Your task to perform on an android device: Open a new incognito window in Chrome Image 0: 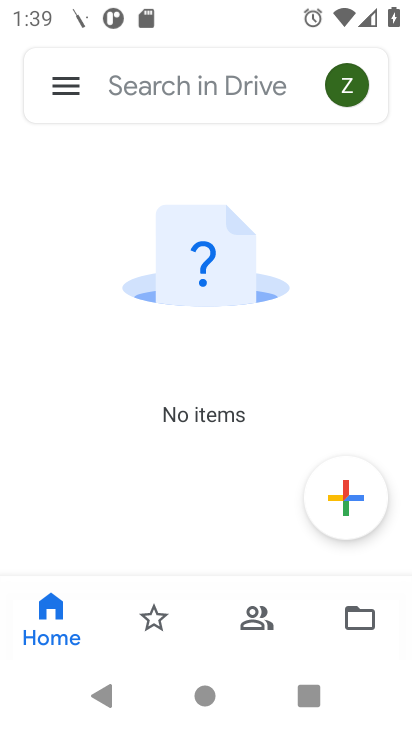
Step 0: press home button
Your task to perform on an android device: Open a new incognito window in Chrome Image 1: 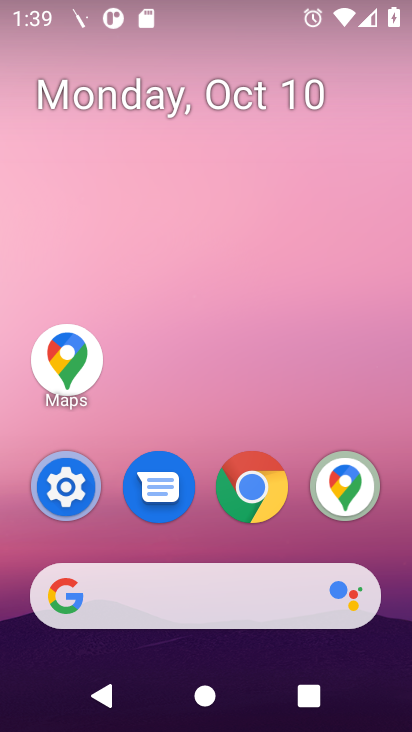
Step 1: click (258, 491)
Your task to perform on an android device: Open a new incognito window in Chrome Image 2: 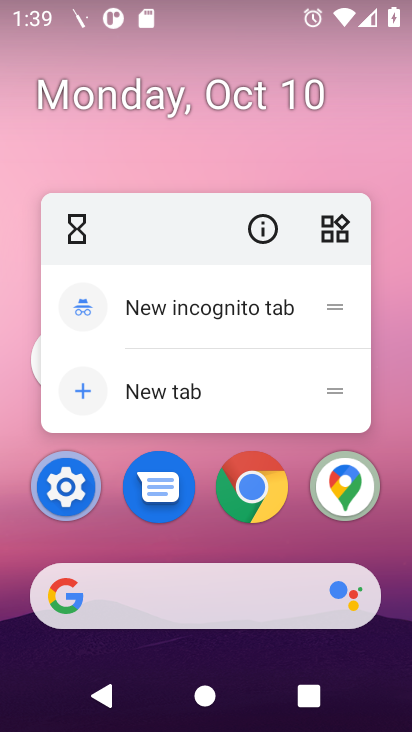
Step 2: click (249, 516)
Your task to perform on an android device: Open a new incognito window in Chrome Image 3: 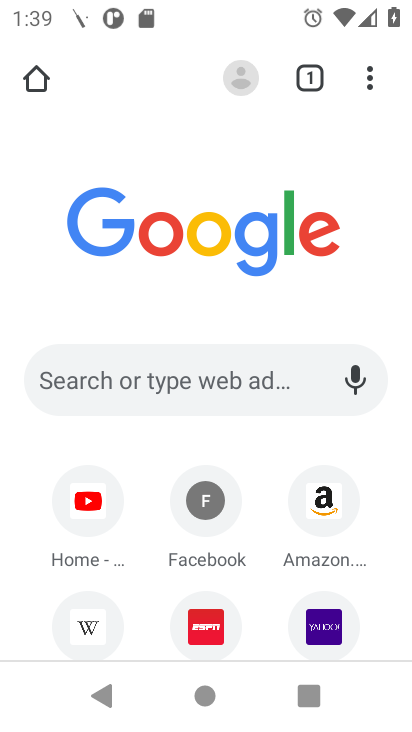
Step 3: click (366, 88)
Your task to perform on an android device: Open a new incognito window in Chrome Image 4: 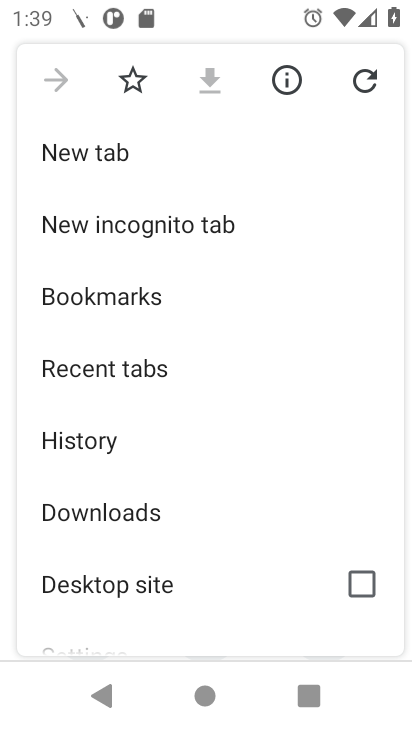
Step 4: click (189, 223)
Your task to perform on an android device: Open a new incognito window in Chrome Image 5: 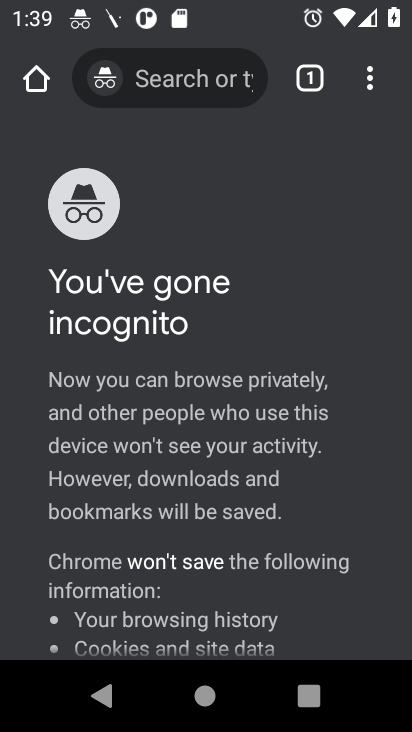
Step 5: task complete